Your task to perform on an android device: search for starred emails in the gmail app Image 0: 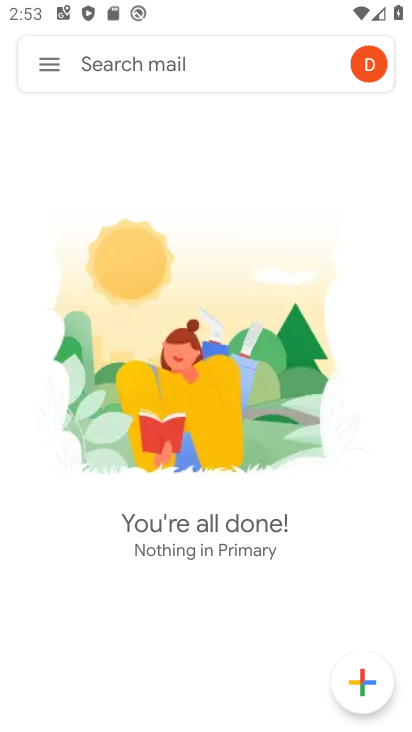
Step 0: press home button
Your task to perform on an android device: search for starred emails in the gmail app Image 1: 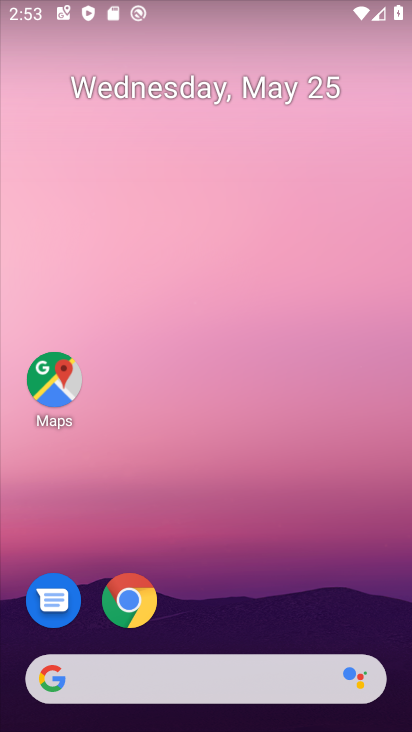
Step 1: drag from (63, 429) to (172, 150)
Your task to perform on an android device: search for starred emails in the gmail app Image 2: 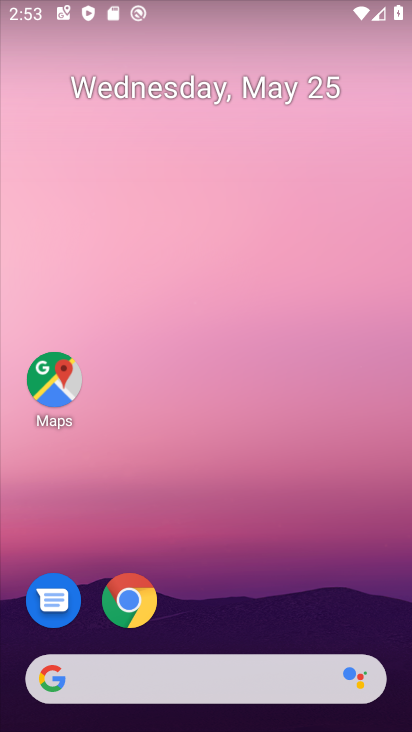
Step 2: drag from (16, 594) to (205, 201)
Your task to perform on an android device: search for starred emails in the gmail app Image 3: 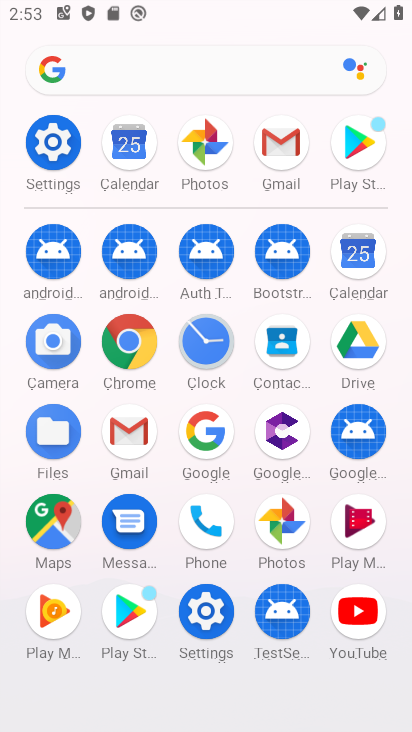
Step 3: click (140, 434)
Your task to perform on an android device: search for starred emails in the gmail app Image 4: 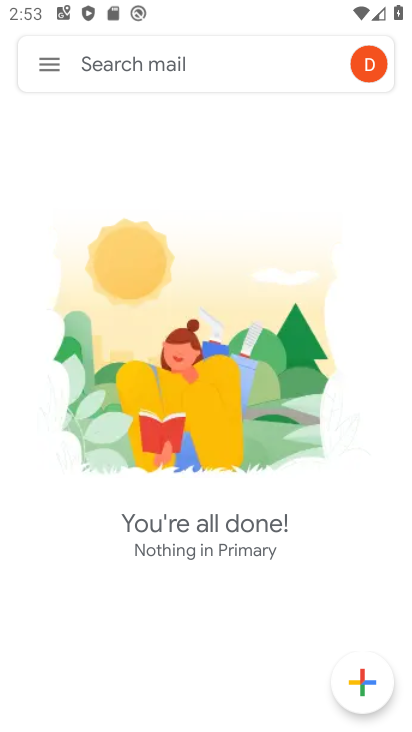
Step 4: click (52, 62)
Your task to perform on an android device: search for starred emails in the gmail app Image 5: 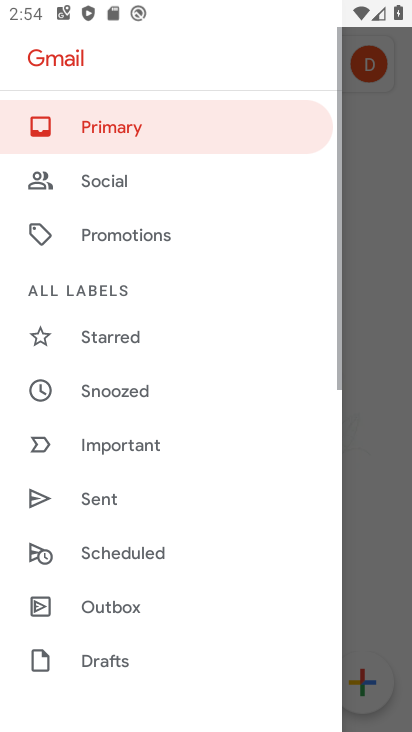
Step 5: click (168, 338)
Your task to perform on an android device: search for starred emails in the gmail app Image 6: 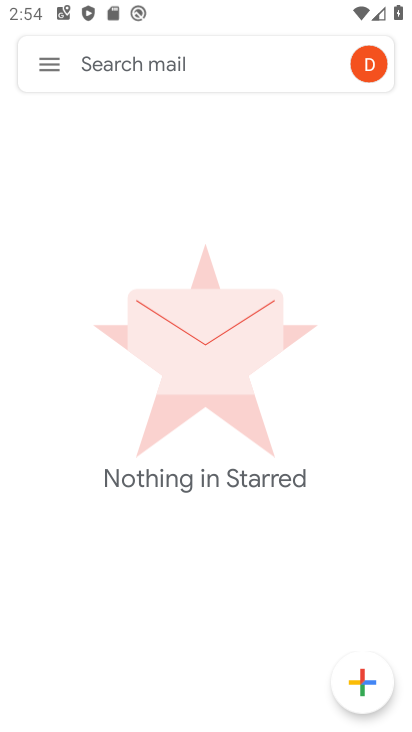
Step 6: task complete